Your task to perform on an android device: open app "Microsoft Excel" (install if not already installed) Image 0: 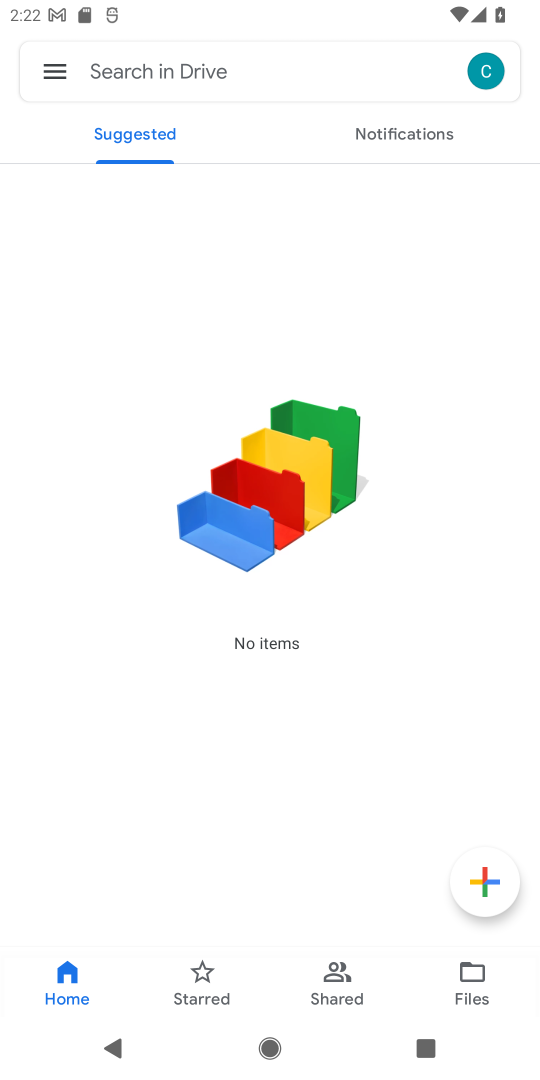
Step 0: press home button
Your task to perform on an android device: open app "Microsoft Excel" (install if not already installed) Image 1: 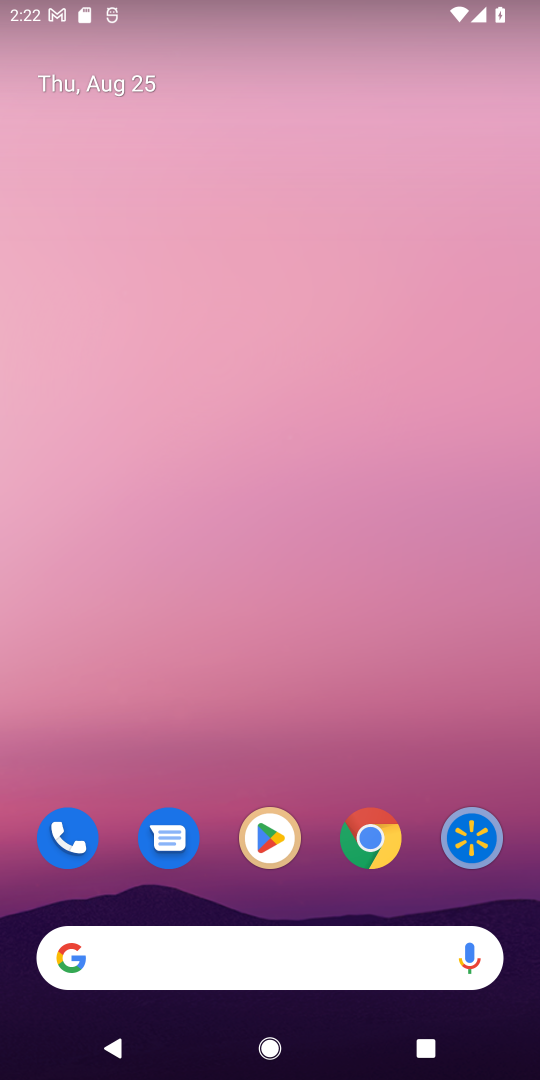
Step 1: click (270, 836)
Your task to perform on an android device: open app "Microsoft Excel" (install if not already installed) Image 2: 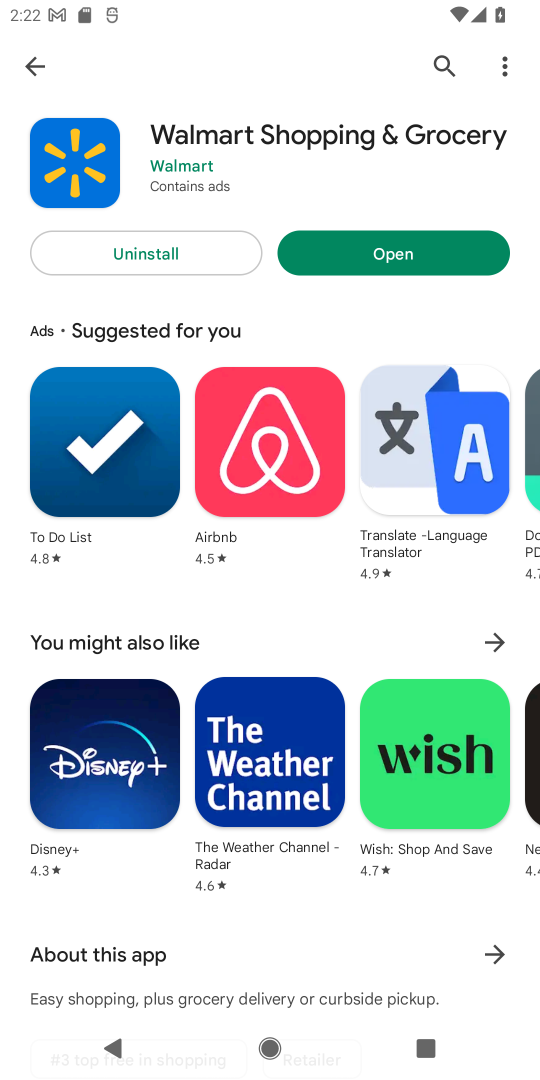
Step 2: click (27, 65)
Your task to perform on an android device: open app "Microsoft Excel" (install if not already installed) Image 3: 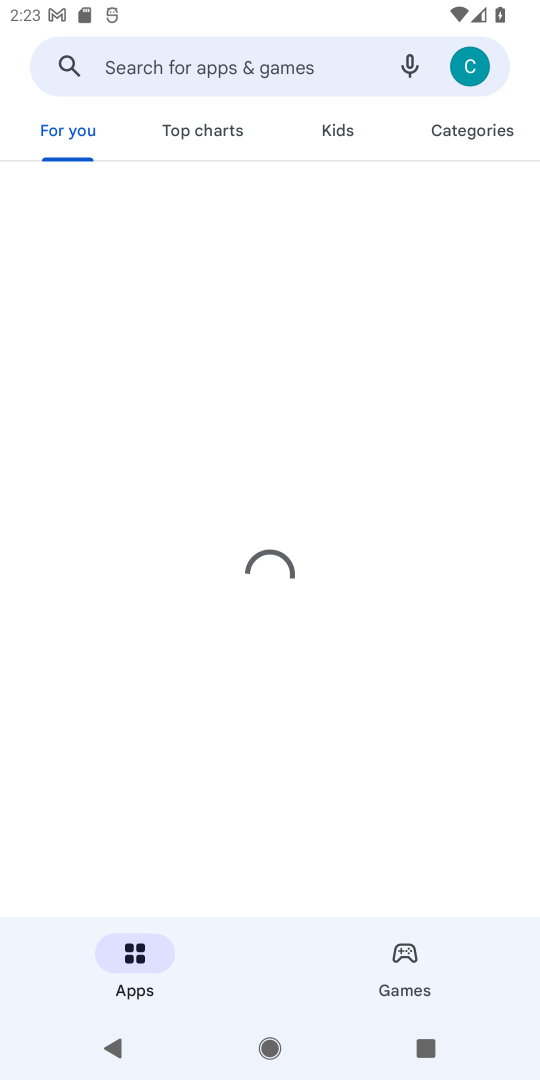
Step 3: click (178, 59)
Your task to perform on an android device: open app "Microsoft Excel" (install if not already installed) Image 4: 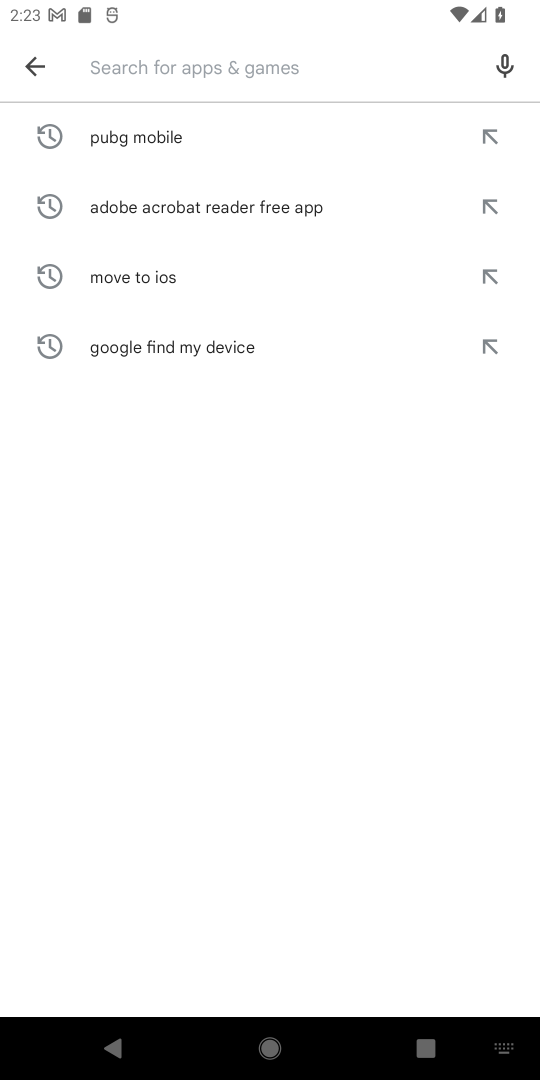
Step 4: type "Microsoft Excel"
Your task to perform on an android device: open app "Microsoft Excel" (install if not already installed) Image 5: 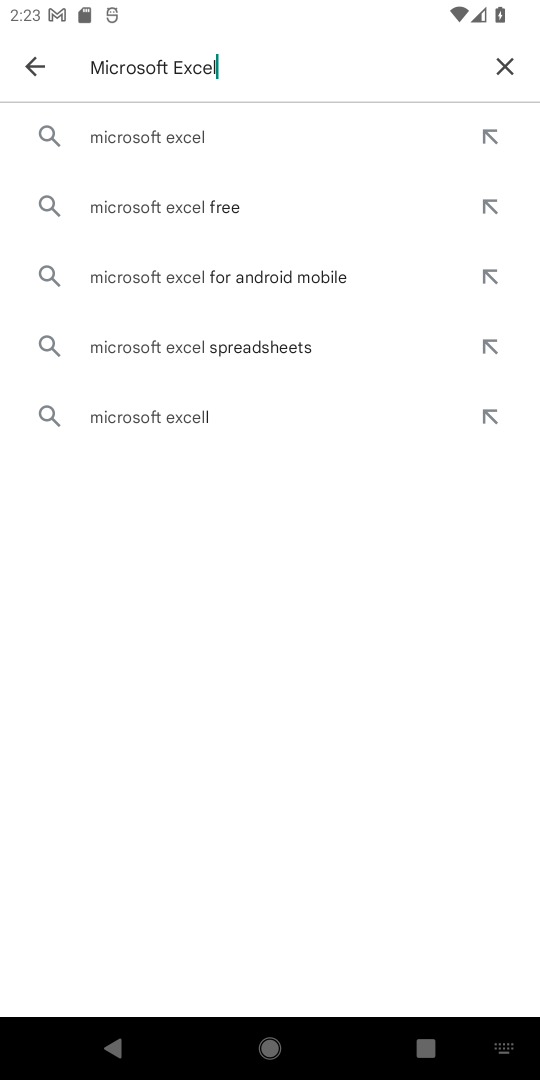
Step 5: click (185, 142)
Your task to perform on an android device: open app "Microsoft Excel" (install if not already installed) Image 6: 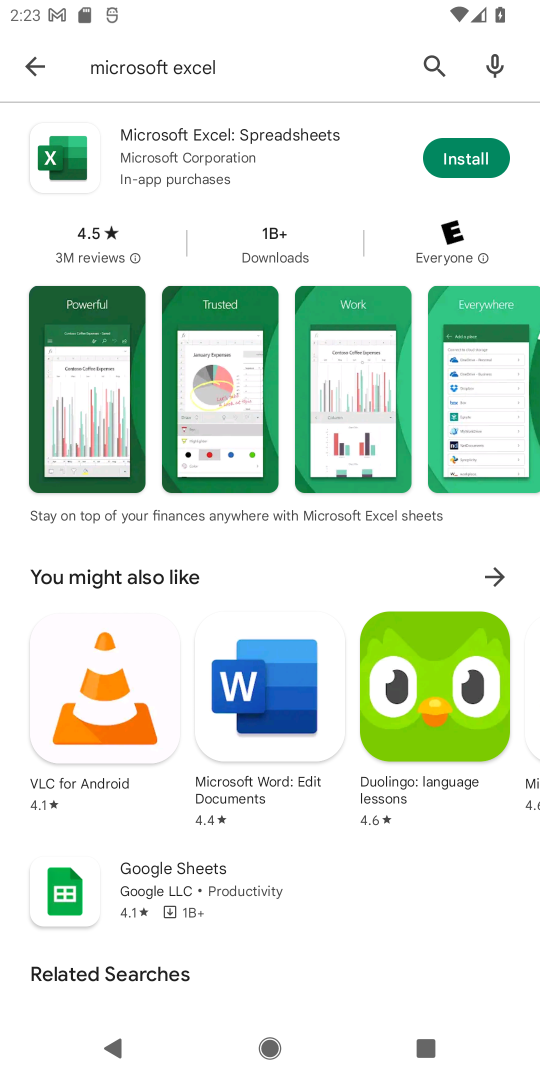
Step 6: click (479, 152)
Your task to perform on an android device: open app "Microsoft Excel" (install if not already installed) Image 7: 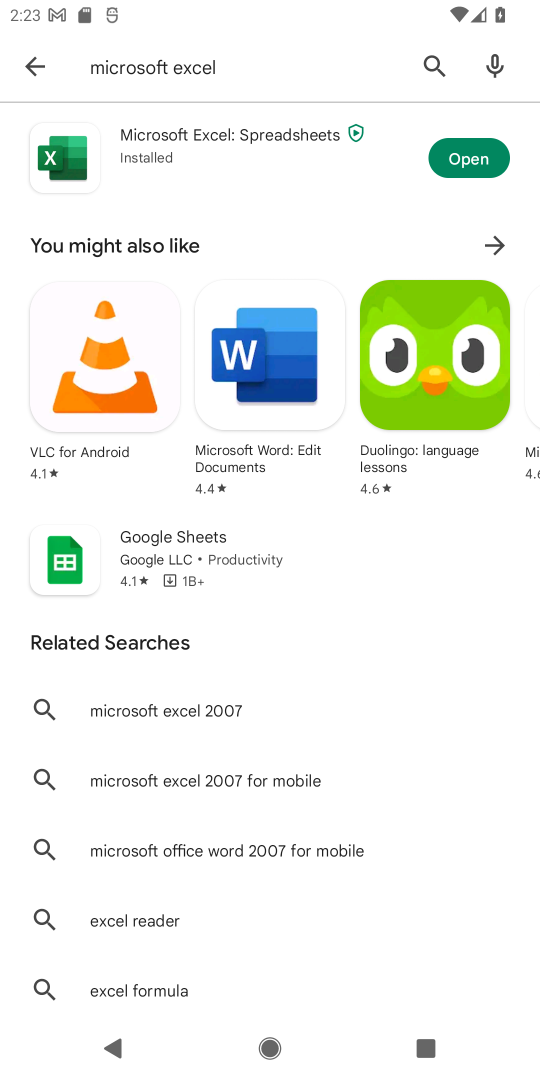
Step 7: click (453, 159)
Your task to perform on an android device: open app "Microsoft Excel" (install if not already installed) Image 8: 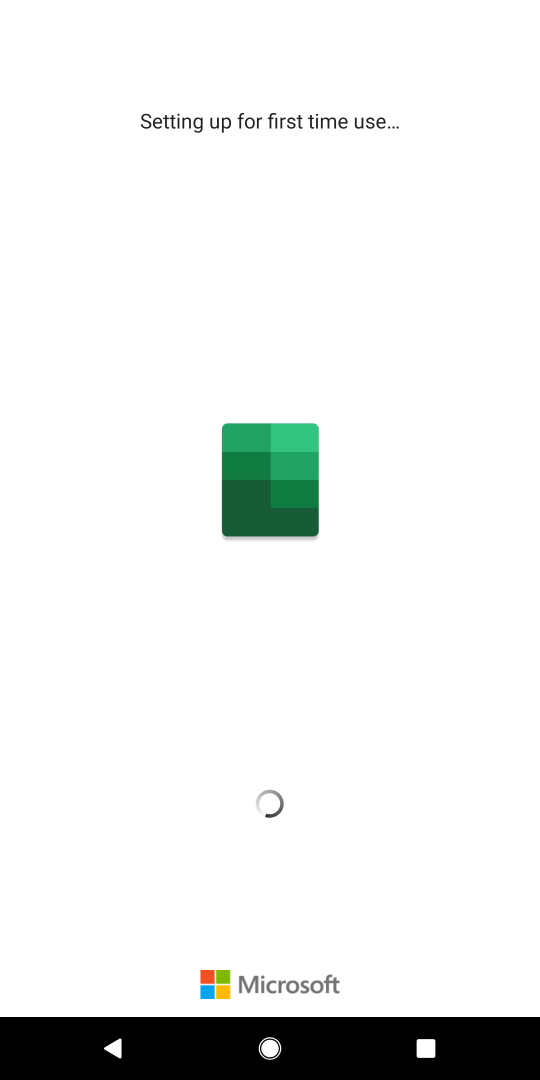
Step 8: task complete